Your task to perform on an android device: turn on airplane mode Image 0: 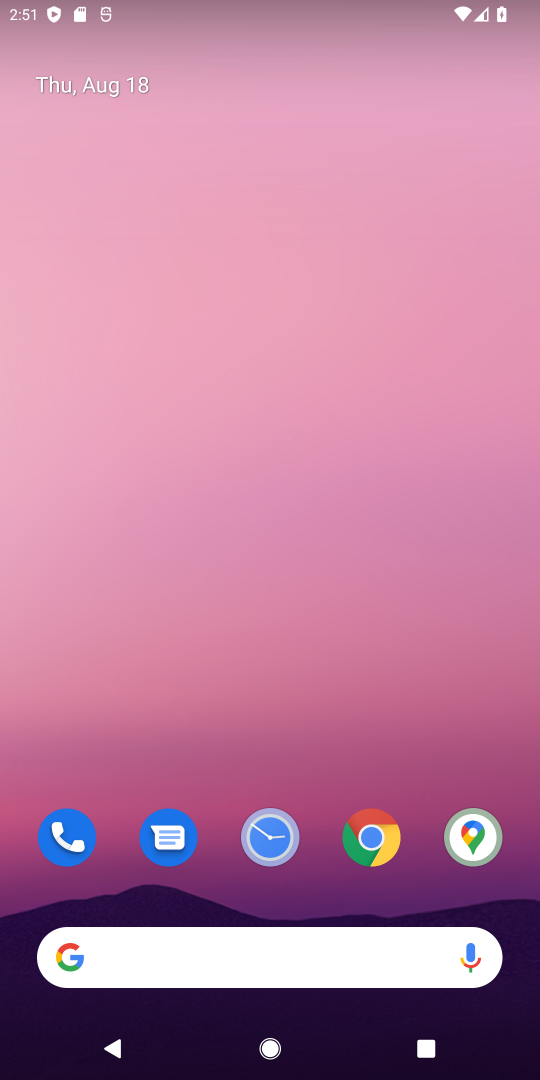
Step 0: drag from (426, 781) to (487, 190)
Your task to perform on an android device: turn on airplane mode Image 1: 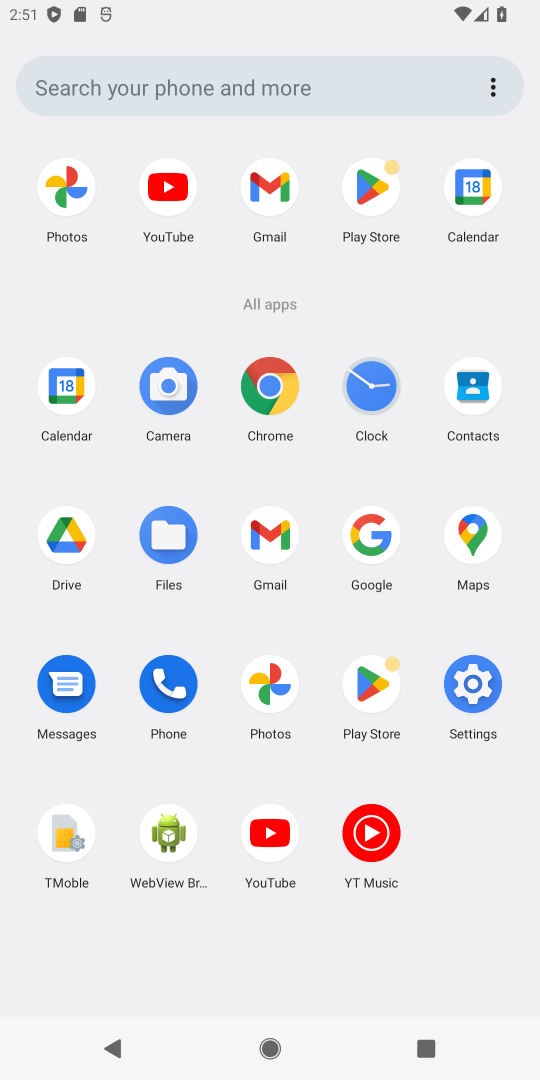
Step 1: click (475, 682)
Your task to perform on an android device: turn on airplane mode Image 2: 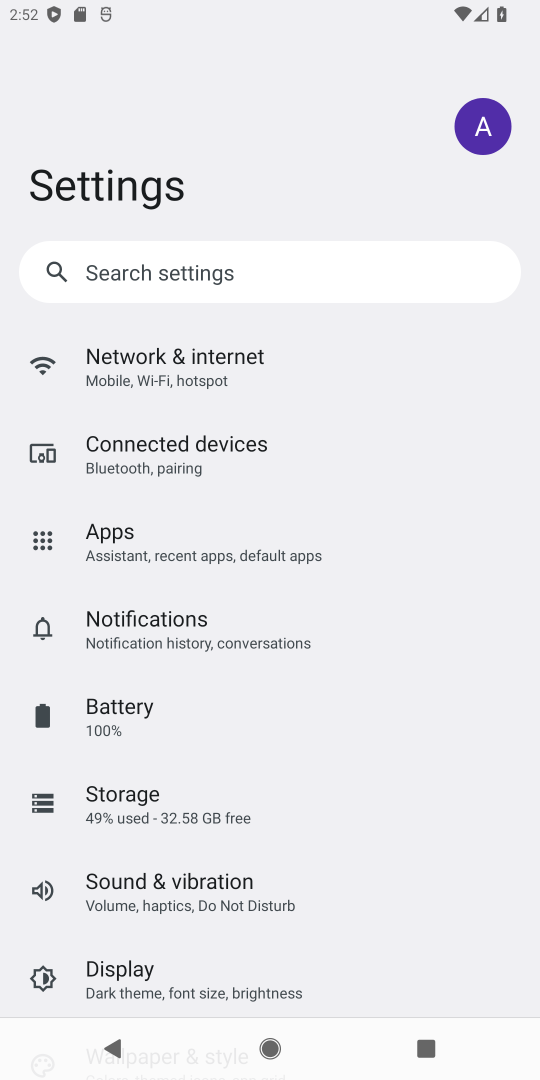
Step 2: click (241, 385)
Your task to perform on an android device: turn on airplane mode Image 3: 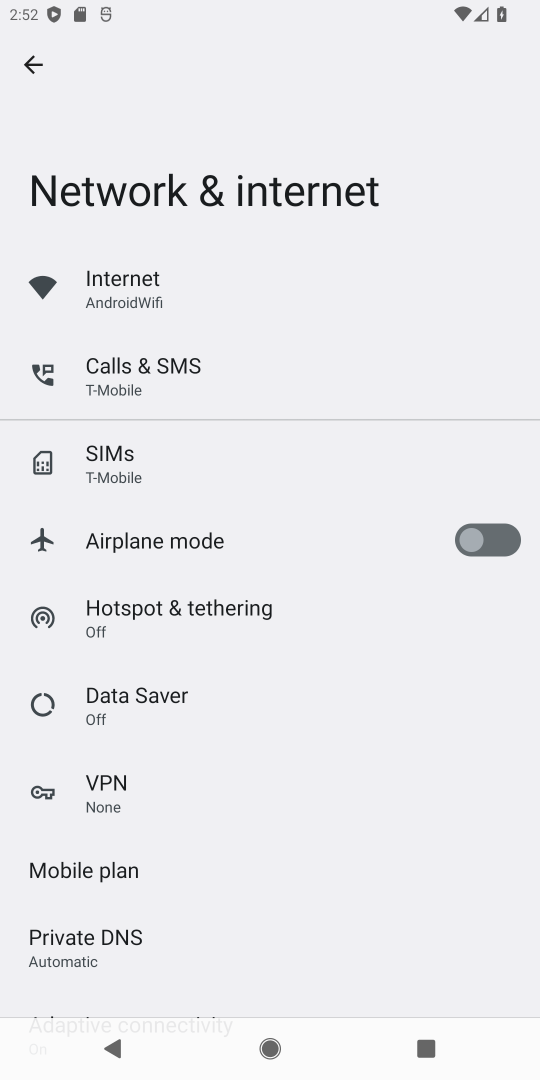
Step 3: click (459, 539)
Your task to perform on an android device: turn on airplane mode Image 4: 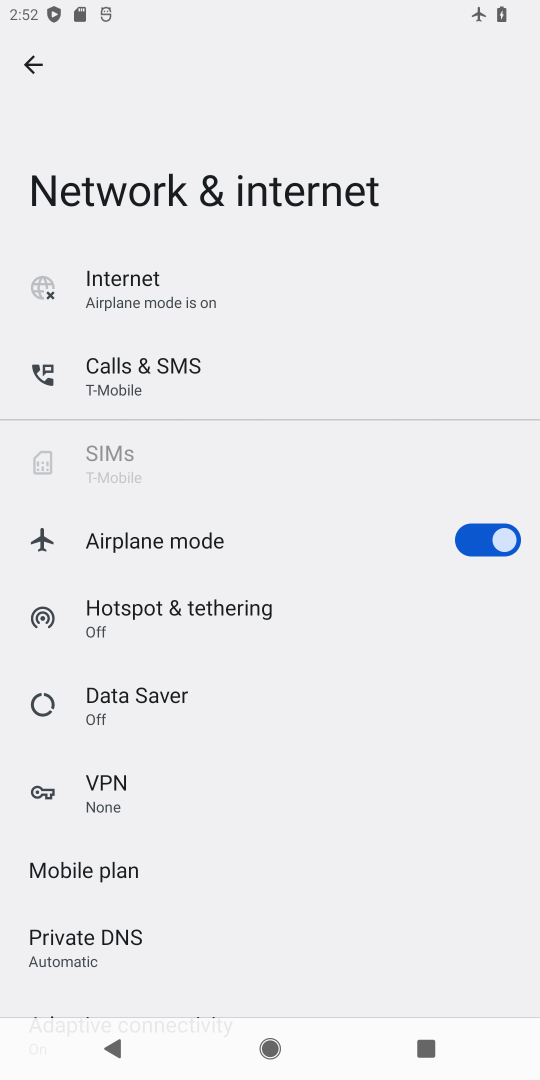
Step 4: task complete